Your task to perform on an android device: delete the emails in spam in the gmail app Image 0: 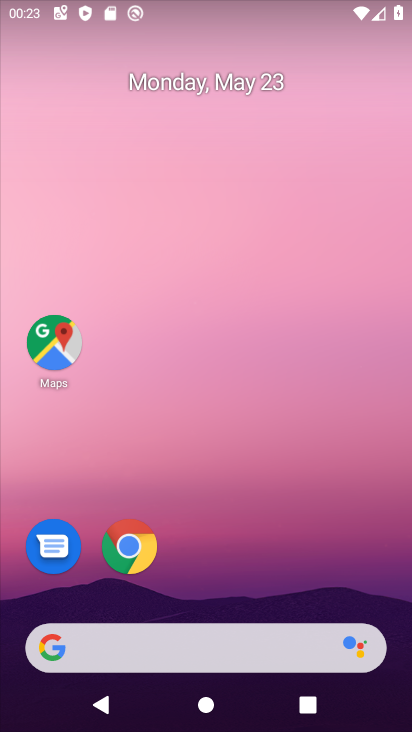
Step 0: drag from (251, 0) to (276, 29)
Your task to perform on an android device: delete the emails in spam in the gmail app Image 1: 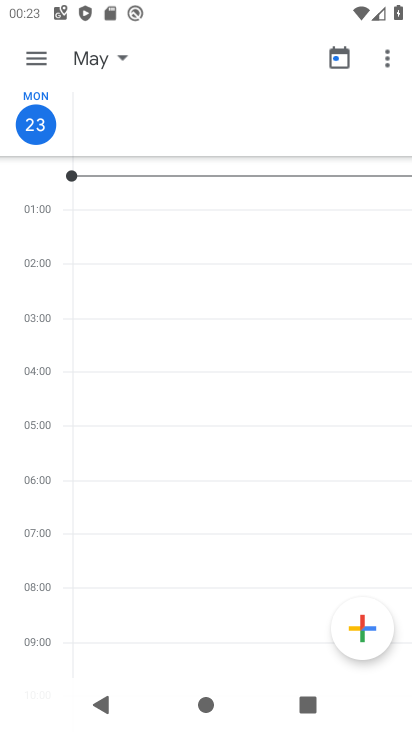
Step 1: press home button
Your task to perform on an android device: delete the emails in spam in the gmail app Image 2: 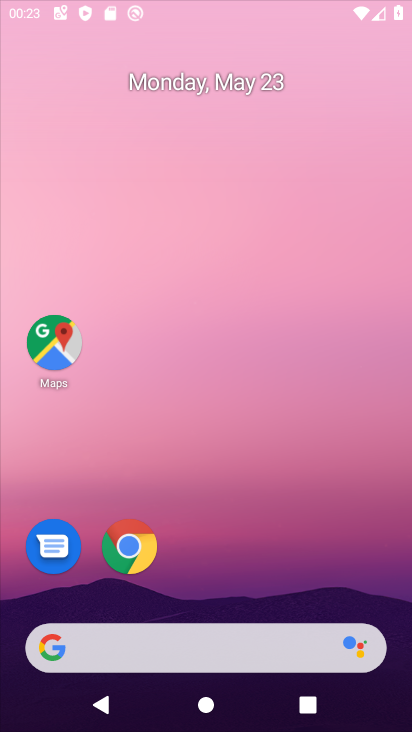
Step 2: drag from (255, 556) to (302, 114)
Your task to perform on an android device: delete the emails in spam in the gmail app Image 3: 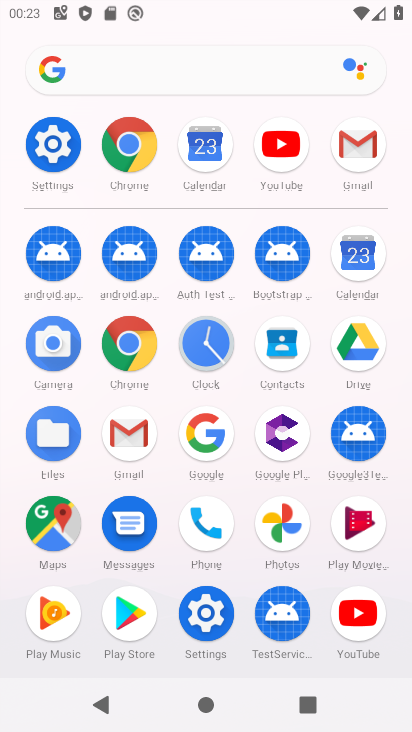
Step 3: click (119, 425)
Your task to perform on an android device: delete the emails in spam in the gmail app Image 4: 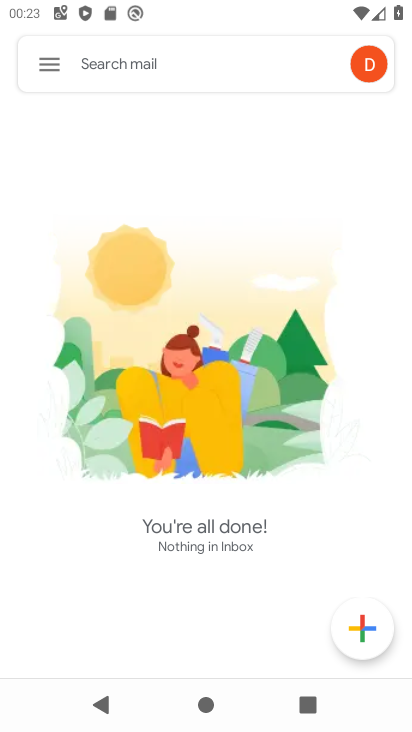
Step 4: click (45, 52)
Your task to perform on an android device: delete the emails in spam in the gmail app Image 5: 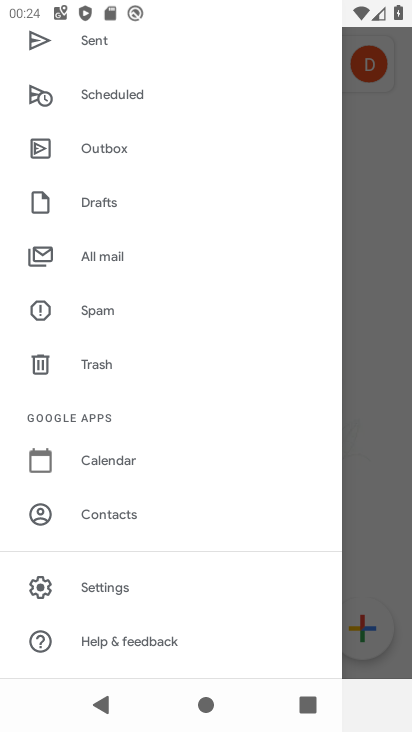
Step 5: drag from (153, 185) to (228, 640)
Your task to perform on an android device: delete the emails in spam in the gmail app Image 6: 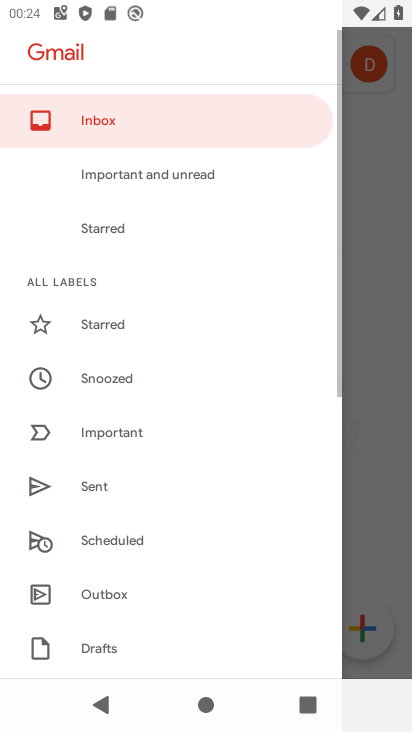
Step 6: drag from (204, 572) to (295, 68)
Your task to perform on an android device: delete the emails in spam in the gmail app Image 7: 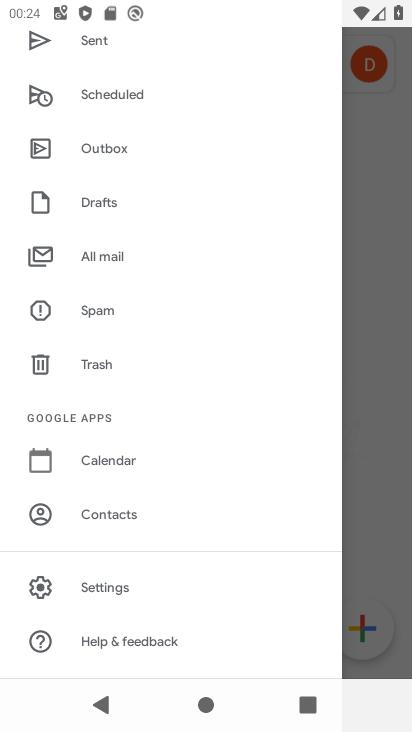
Step 7: click (115, 312)
Your task to perform on an android device: delete the emails in spam in the gmail app Image 8: 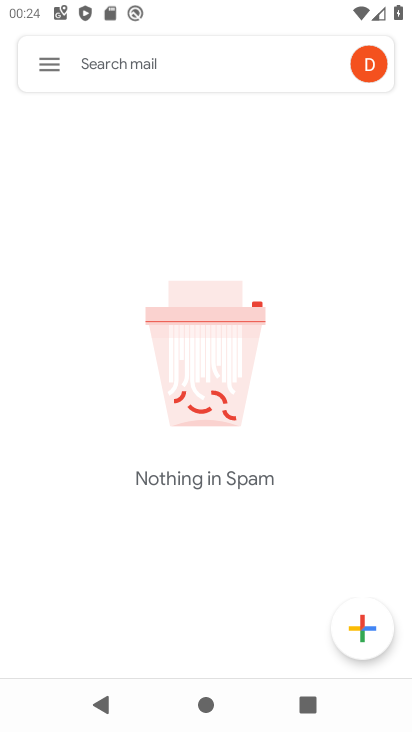
Step 8: task complete